Your task to perform on an android device: What's the weather today? Image 0: 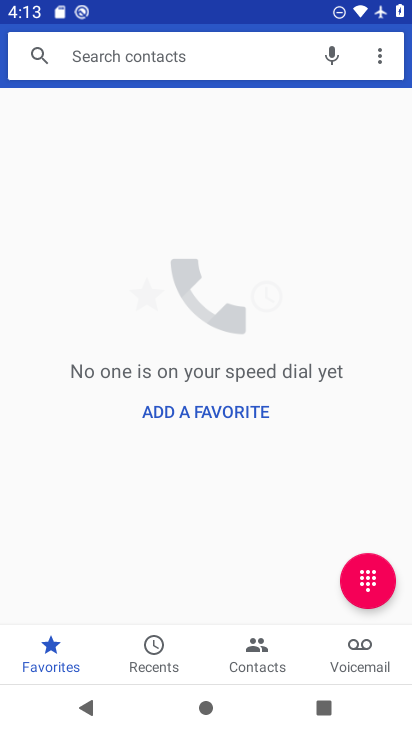
Step 0: press home button
Your task to perform on an android device: What's the weather today? Image 1: 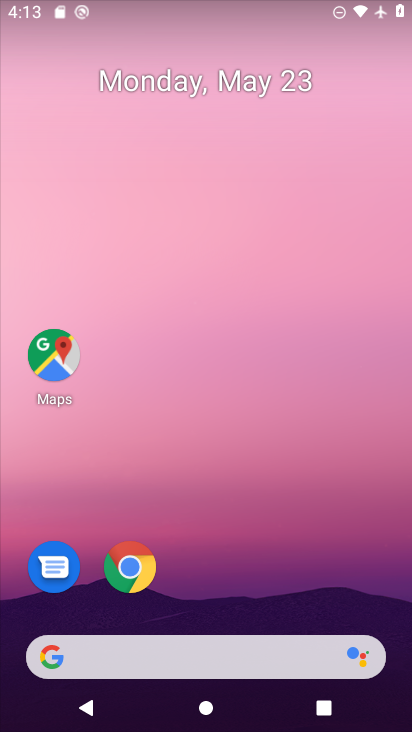
Step 1: click (216, 634)
Your task to perform on an android device: What's the weather today? Image 2: 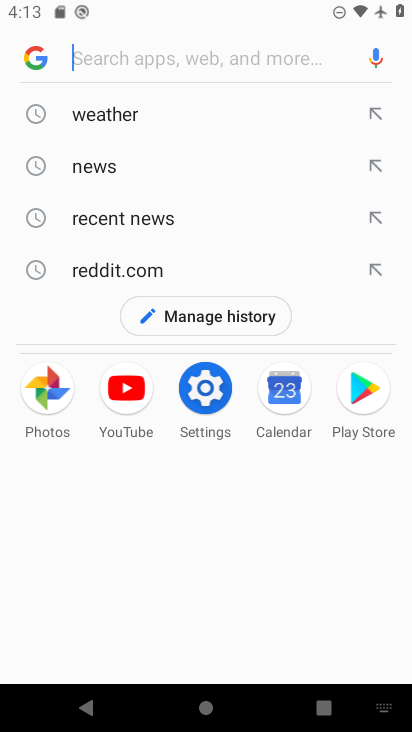
Step 2: click (107, 105)
Your task to perform on an android device: What's the weather today? Image 3: 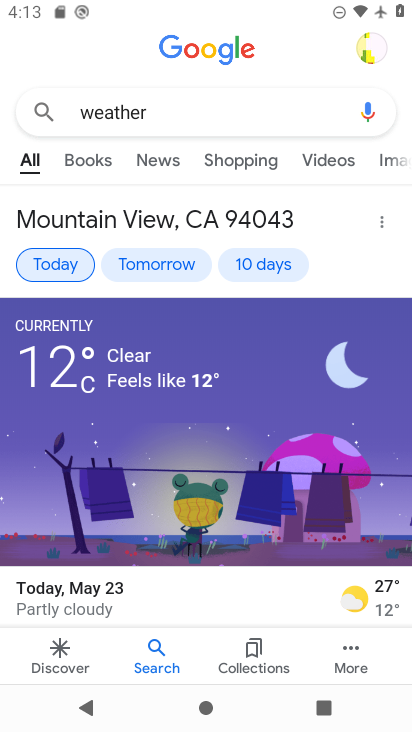
Step 3: task complete